Your task to perform on an android device: find snoozed emails in the gmail app Image 0: 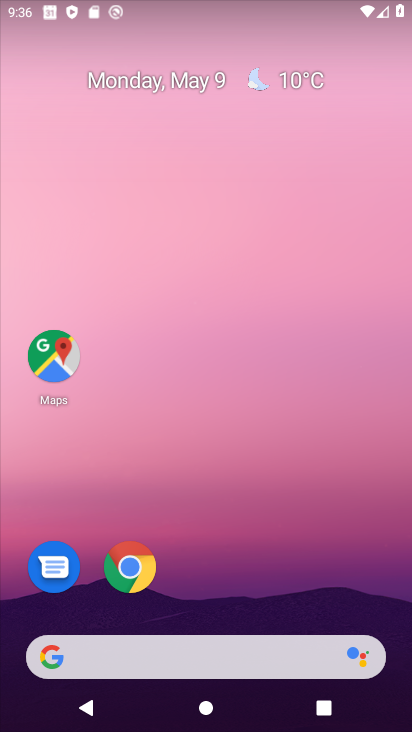
Step 0: drag from (266, 524) to (329, 38)
Your task to perform on an android device: find snoozed emails in the gmail app Image 1: 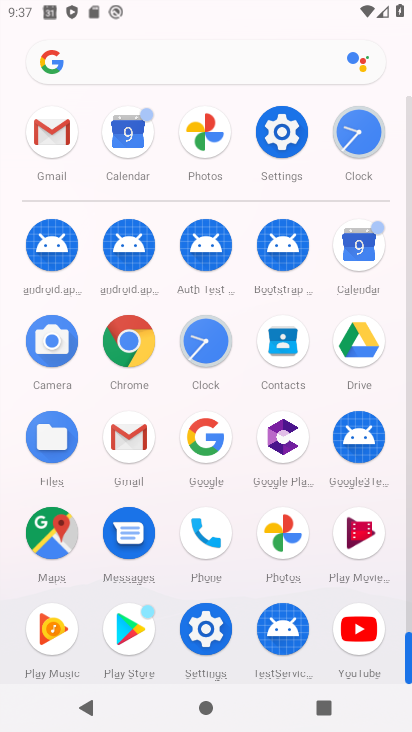
Step 1: click (44, 133)
Your task to perform on an android device: find snoozed emails in the gmail app Image 2: 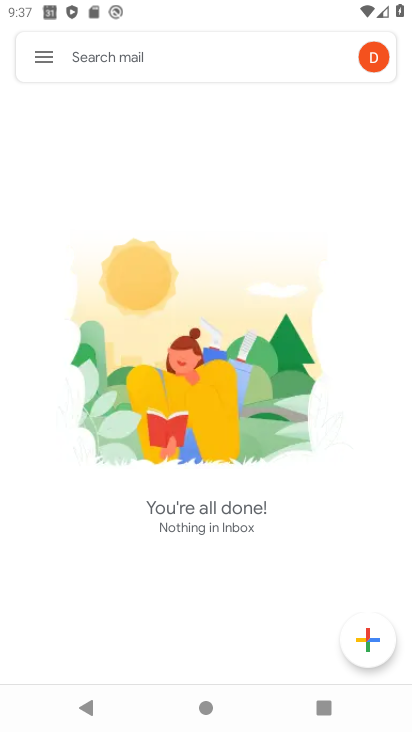
Step 2: click (43, 47)
Your task to perform on an android device: find snoozed emails in the gmail app Image 3: 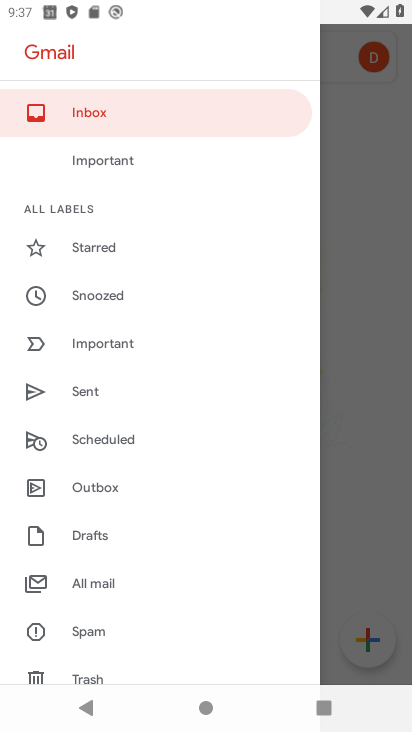
Step 3: click (98, 288)
Your task to perform on an android device: find snoozed emails in the gmail app Image 4: 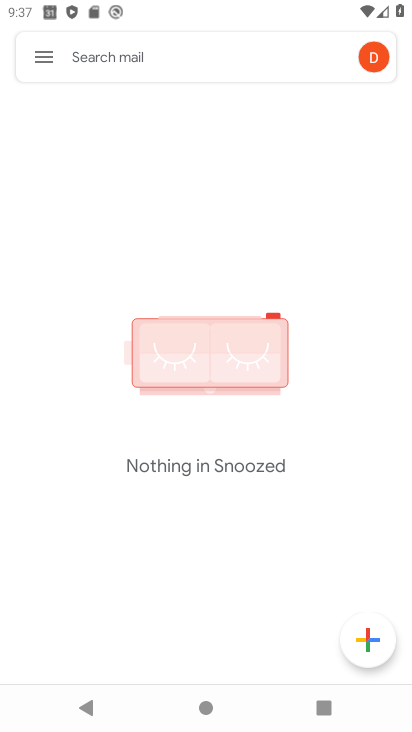
Step 4: task complete